Your task to perform on an android device: Go to privacy settings Image 0: 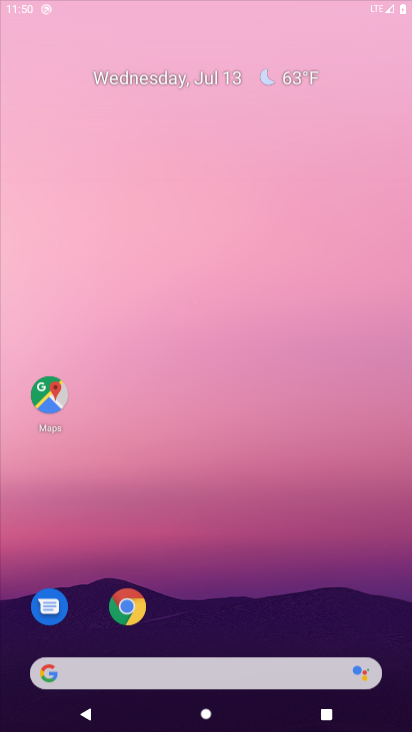
Step 0: press home button
Your task to perform on an android device: Go to privacy settings Image 1: 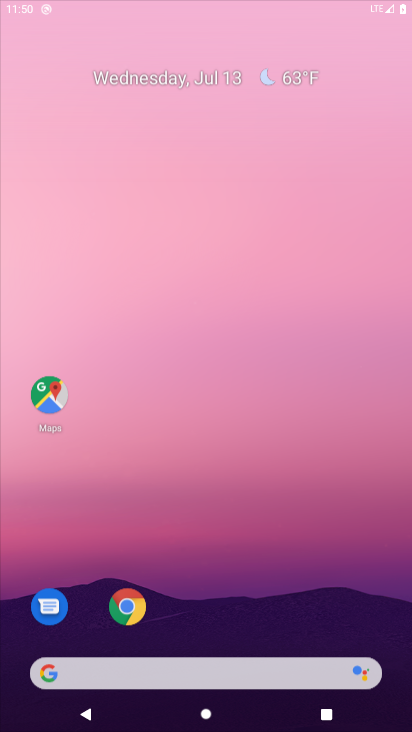
Step 1: click (404, 90)
Your task to perform on an android device: Go to privacy settings Image 2: 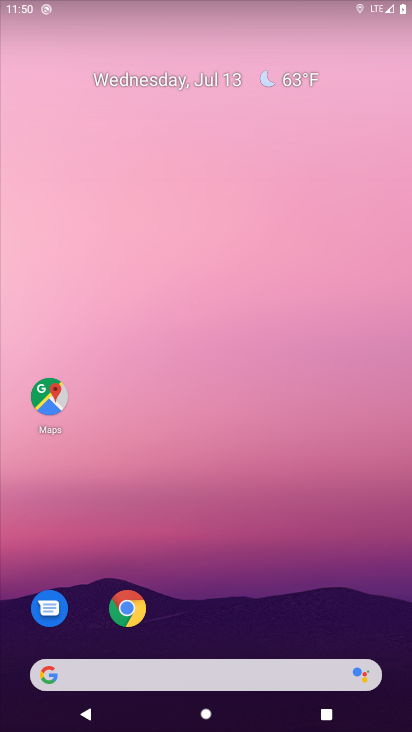
Step 2: drag from (410, 698) to (372, 109)
Your task to perform on an android device: Go to privacy settings Image 3: 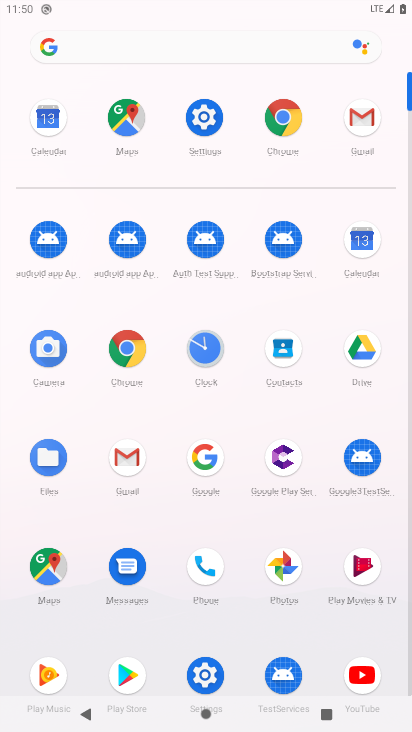
Step 3: click (196, 680)
Your task to perform on an android device: Go to privacy settings Image 4: 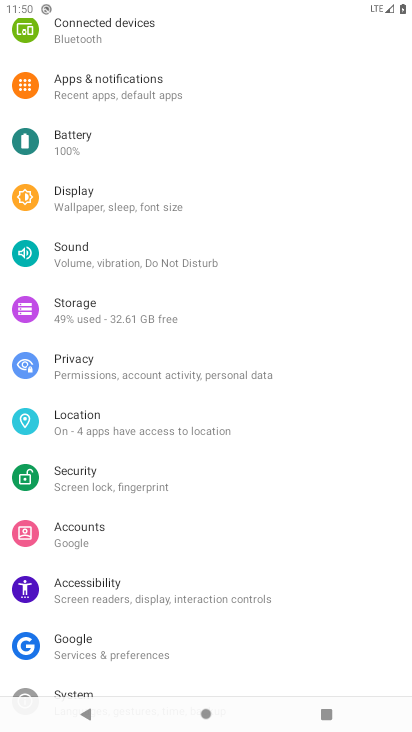
Step 4: click (62, 378)
Your task to perform on an android device: Go to privacy settings Image 5: 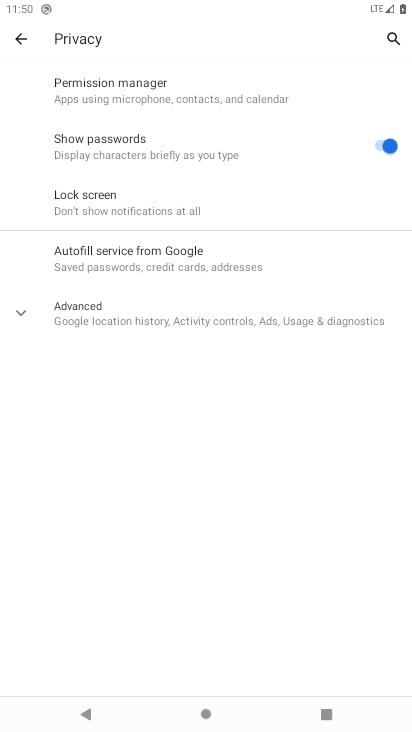
Step 5: task complete